Your task to perform on an android device: What time is it in London? Image 0: 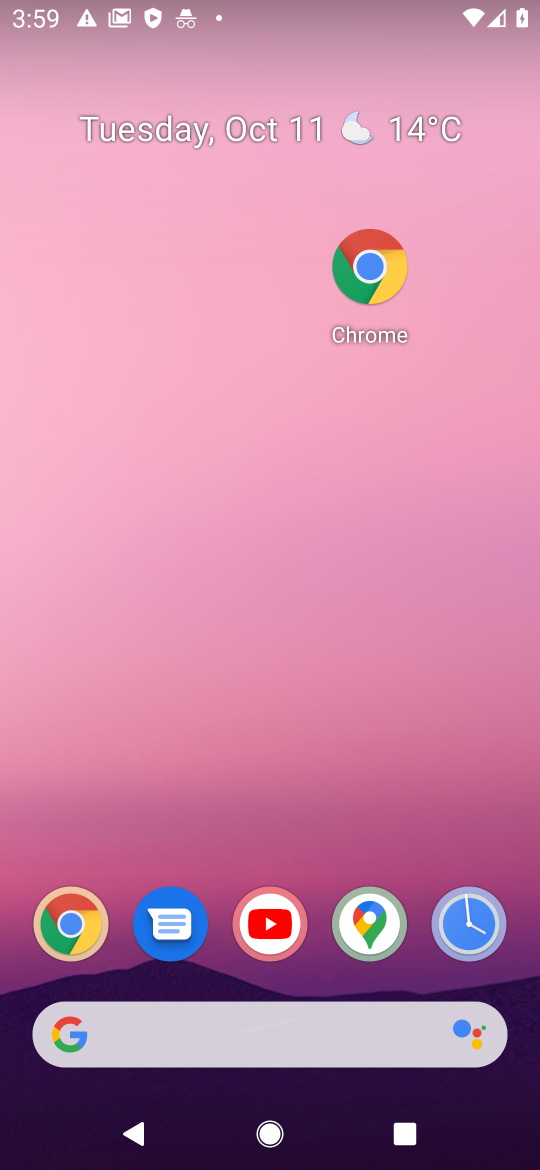
Step 0: click (67, 923)
Your task to perform on an android device: What time is it in London? Image 1: 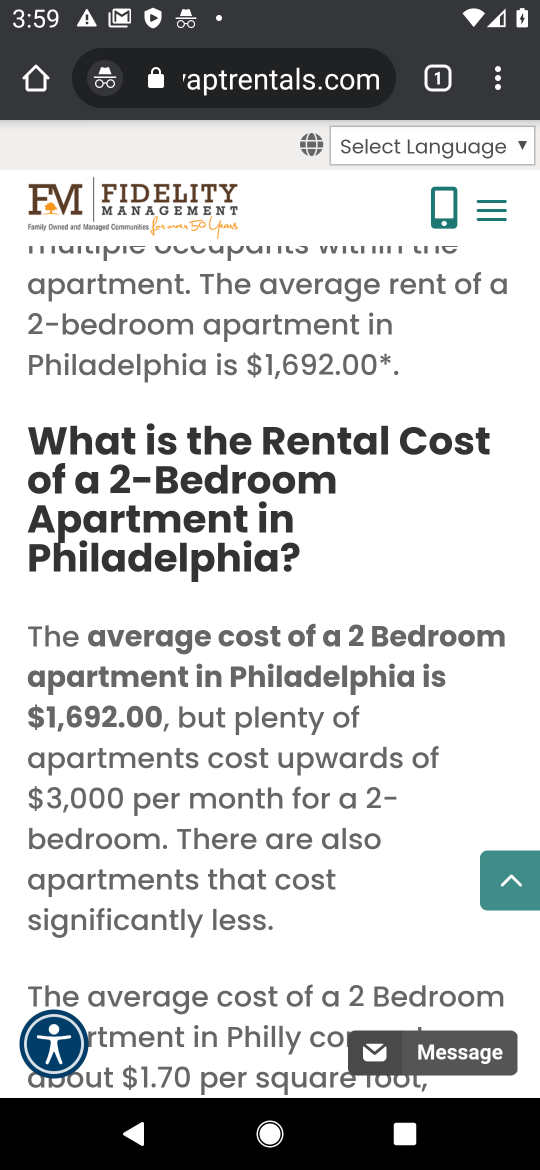
Step 1: click (262, 86)
Your task to perform on an android device: What time is it in London? Image 2: 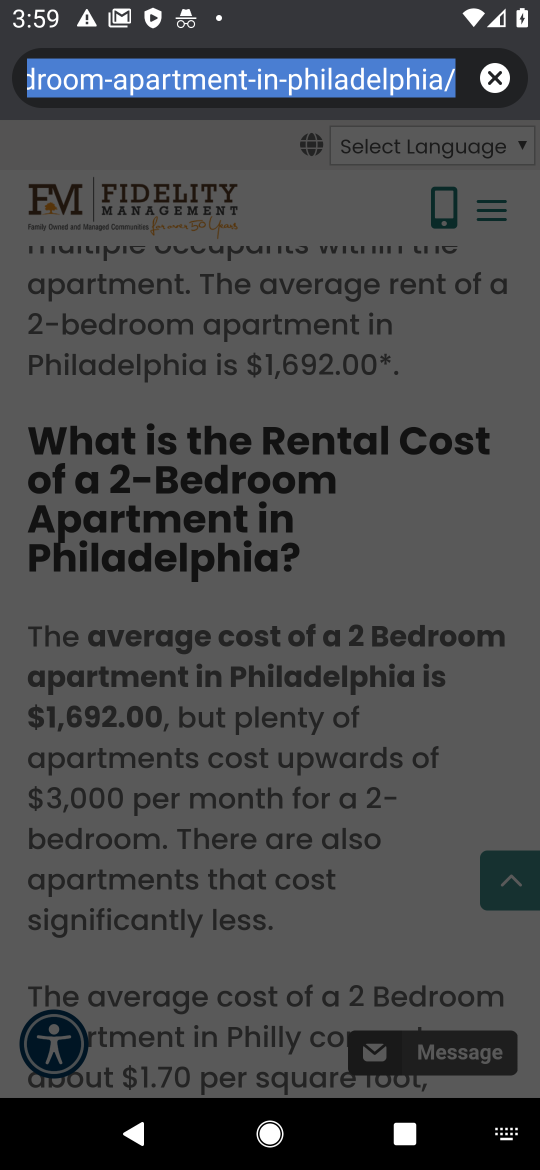
Step 2: type "time in london"
Your task to perform on an android device: What time is it in London? Image 3: 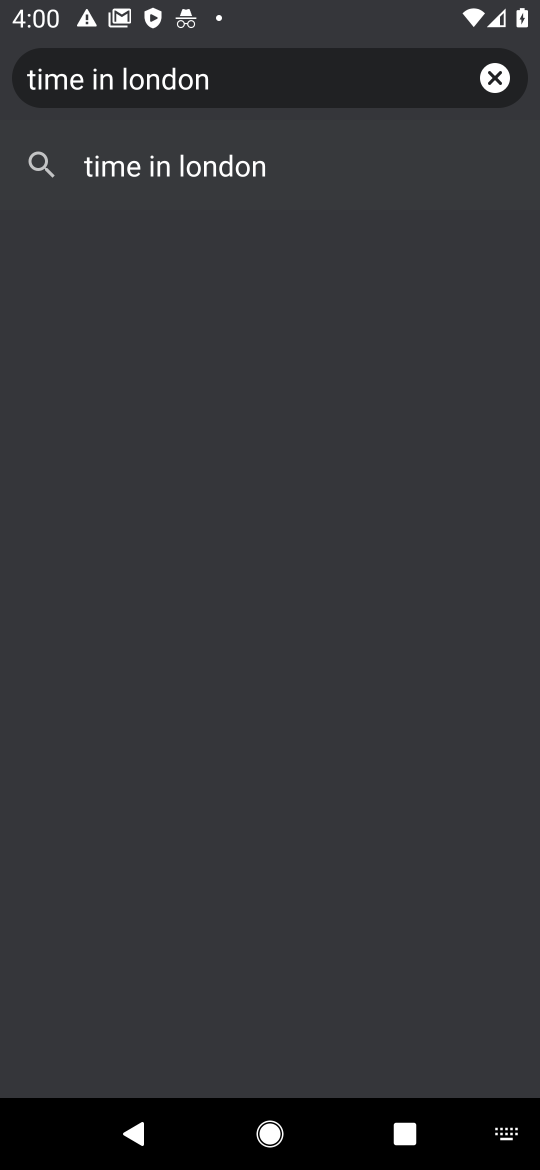
Step 3: click (269, 166)
Your task to perform on an android device: What time is it in London? Image 4: 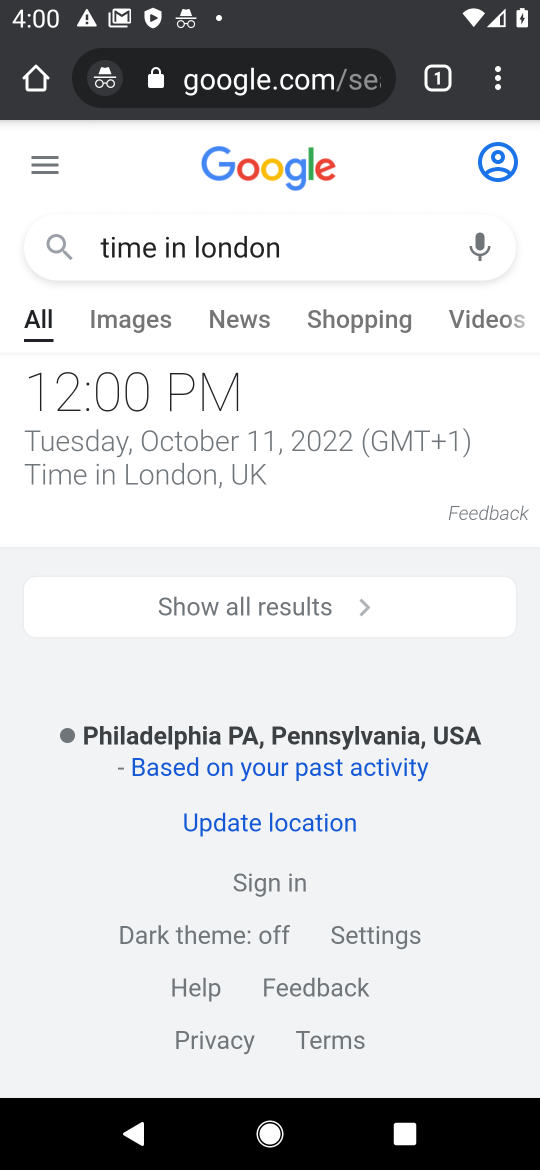
Step 4: task complete